Your task to perform on an android device: delete location history Image 0: 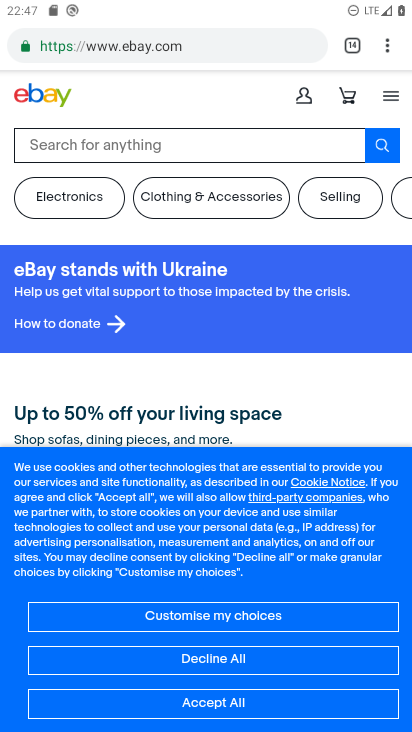
Step 0: press home button
Your task to perform on an android device: delete location history Image 1: 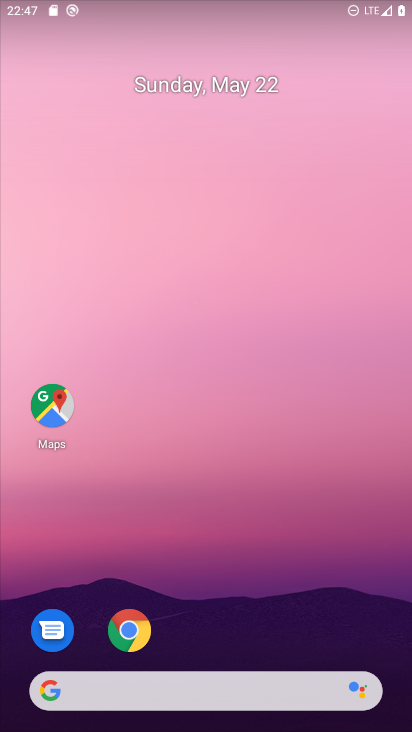
Step 1: click (55, 411)
Your task to perform on an android device: delete location history Image 2: 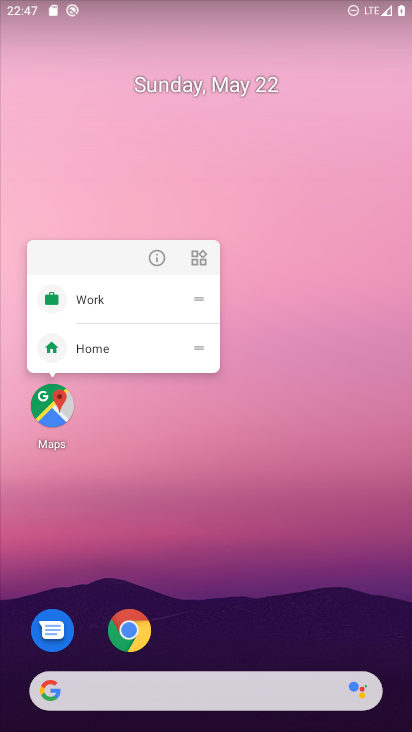
Step 2: click (52, 417)
Your task to perform on an android device: delete location history Image 3: 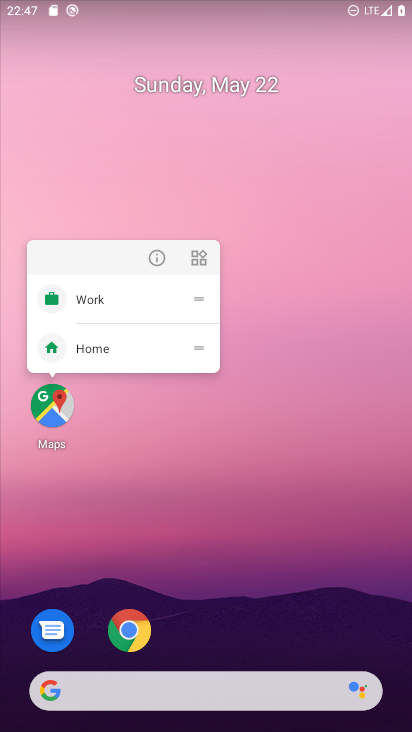
Step 3: click (48, 426)
Your task to perform on an android device: delete location history Image 4: 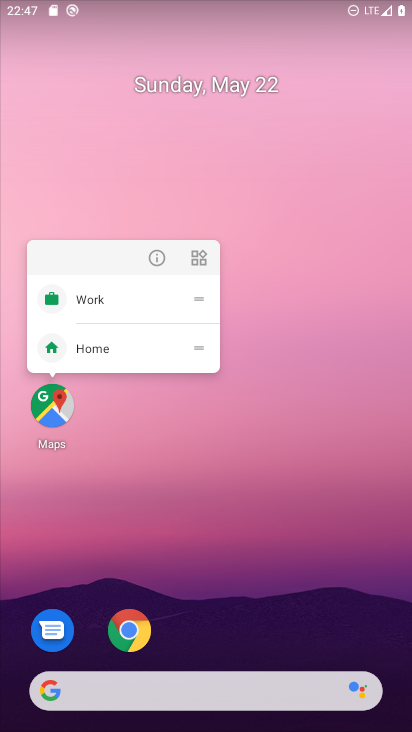
Step 4: click (50, 417)
Your task to perform on an android device: delete location history Image 5: 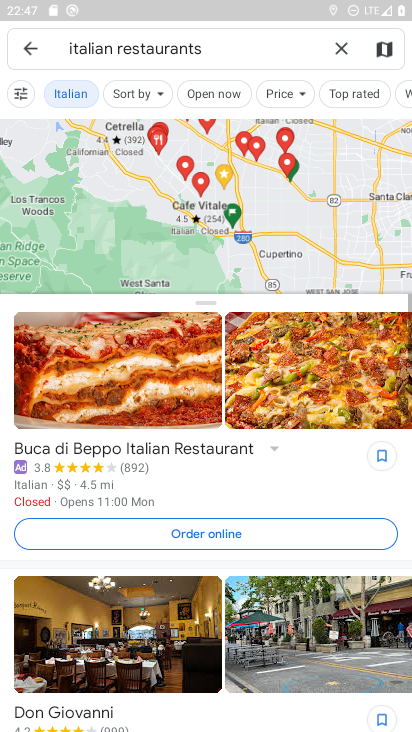
Step 5: click (27, 40)
Your task to perform on an android device: delete location history Image 6: 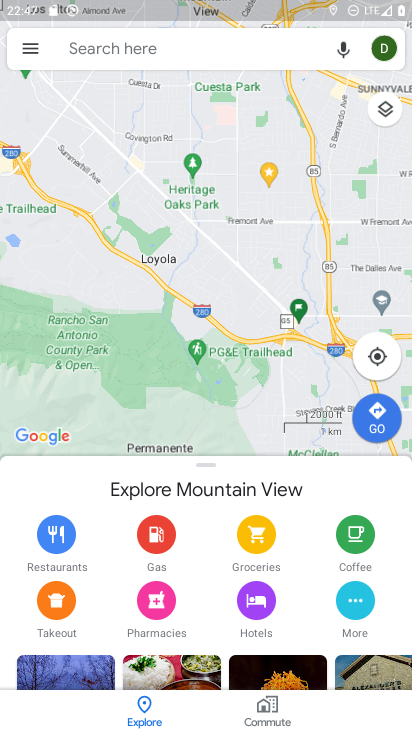
Step 6: click (33, 53)
Your task to perform on an android device: delete location history Image 7: 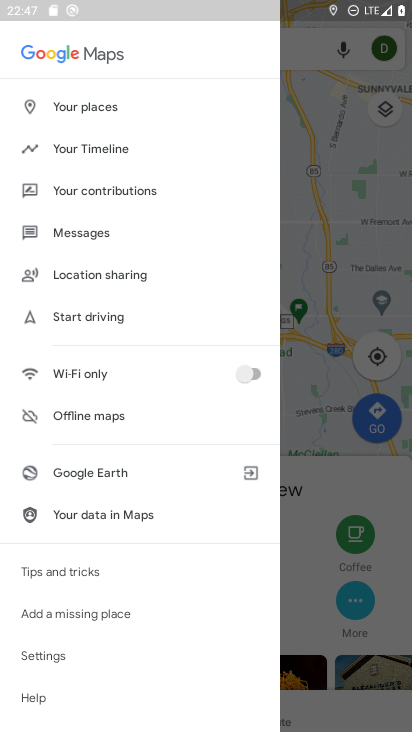
Step 7: click (90, 150)
Your task to perform on an android device: delete location history Image 8: 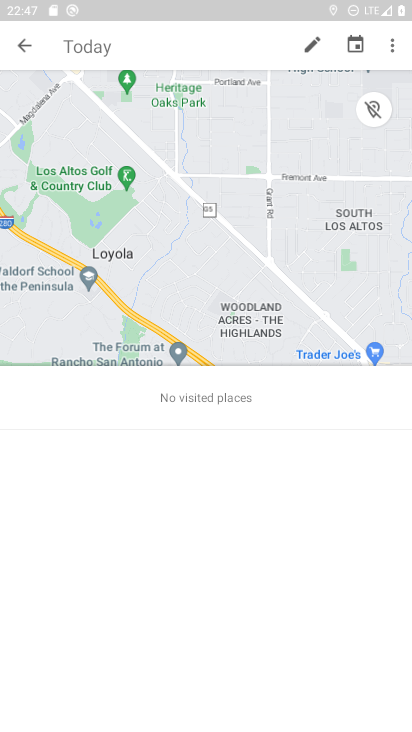
Step 8: click (391, 51)
Your task to perform on an android device: delete location history Image 9: 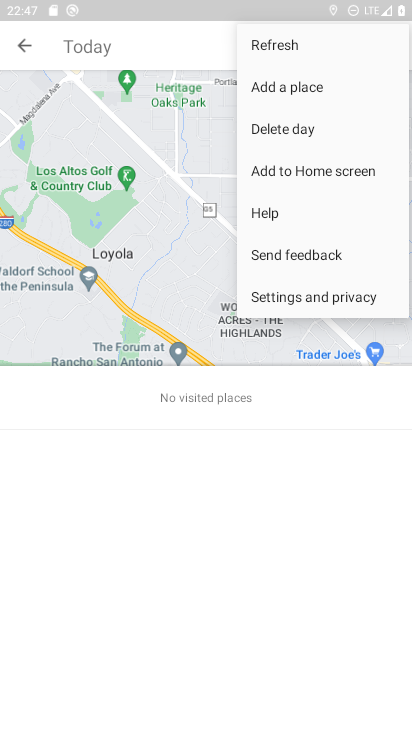
Step 9: click (300, 294)
Your task to perform on an android device: delete location history Image 10: 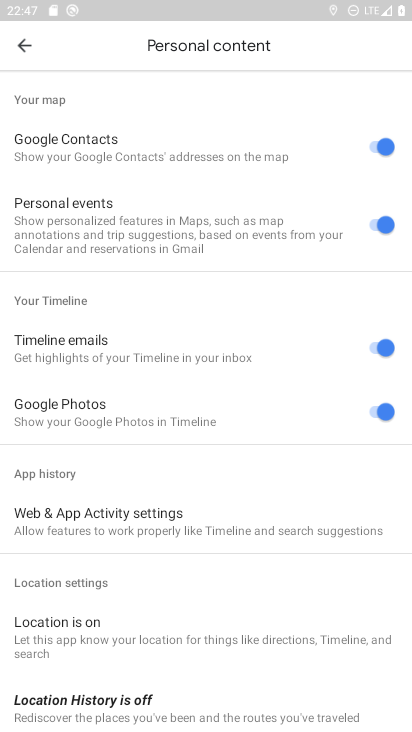
Step 10: drag from (188, 577) to (274, 233)
Your task to perform on an android device: delete location history Image 11: 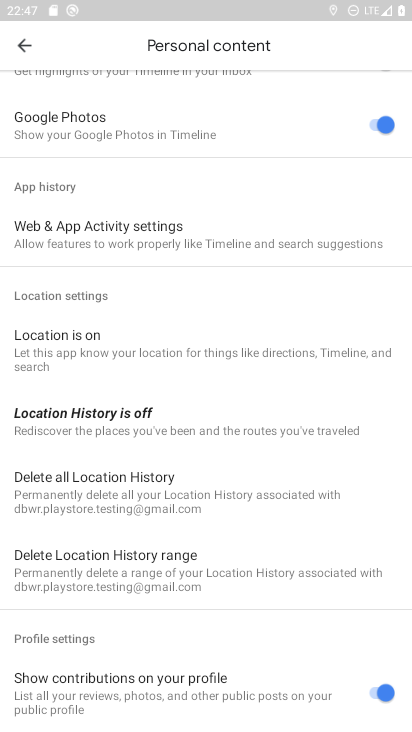
Step 11: click (181, 494)
Your task to perform on an android device: delete location history Image 12: 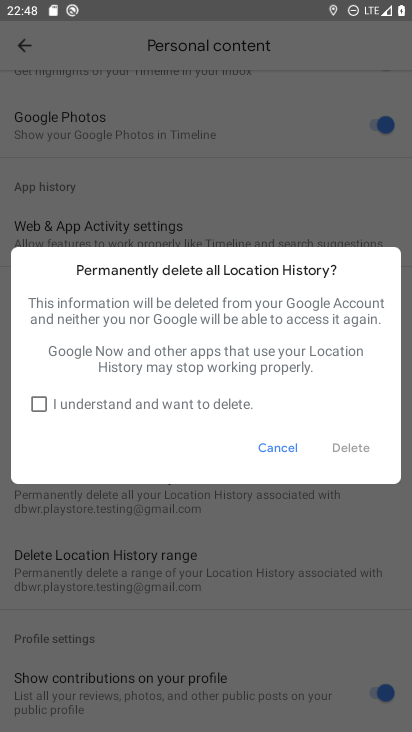
Step 12: click (32, 401)
Your task to perform on an android device: delete location history Image 13: 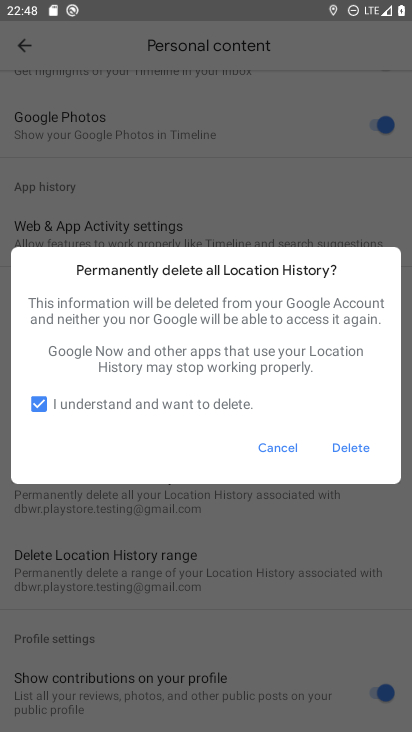
Step 13: click (369, 452)
Your task to perform on an android device: delete location history Image 14: 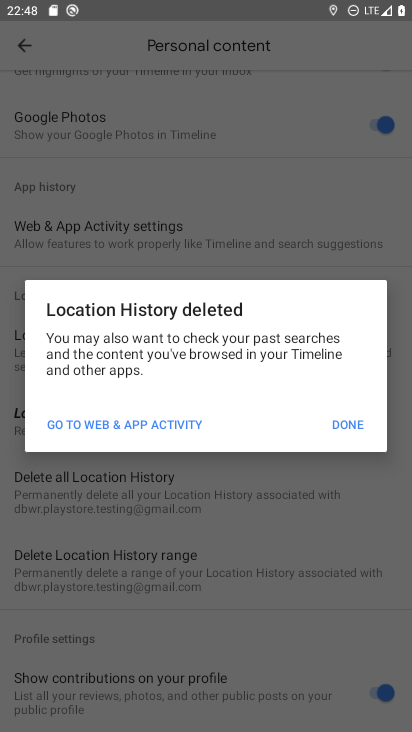
Step 14: click (339, 421)
Your task to perform on an android device: delete location history Image 15: 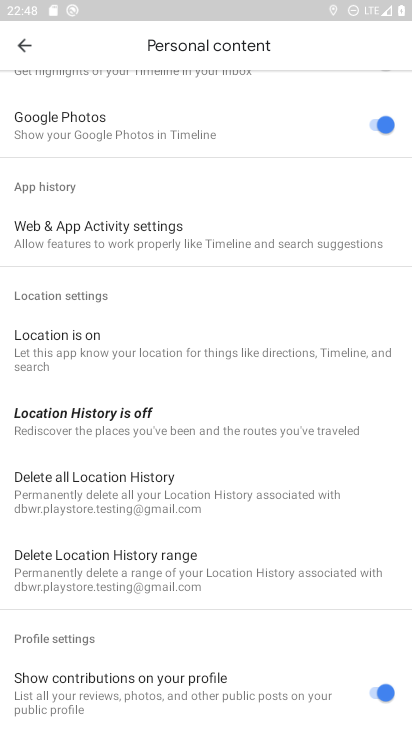
Step 15: task complete